Your task to perform on an android device: toggle wifi Image 0: 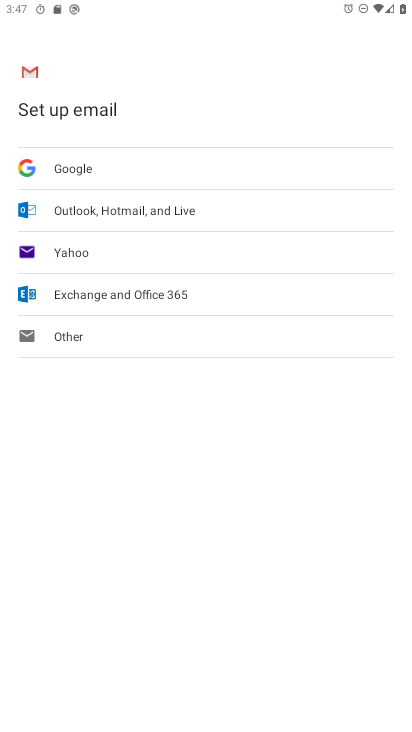
Step 0: press home button
Your task to perform on an android device: toggle wifi Image 1: 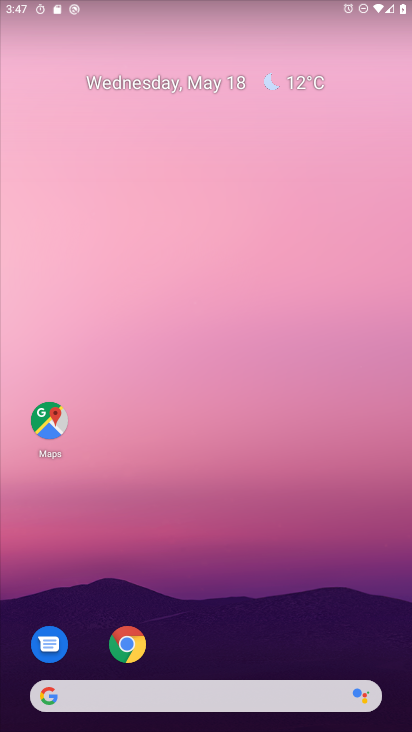
Step 1: drag from (386, 695) to (373, 90)
Your task to perform on an android device: toggle wifi Image 2: 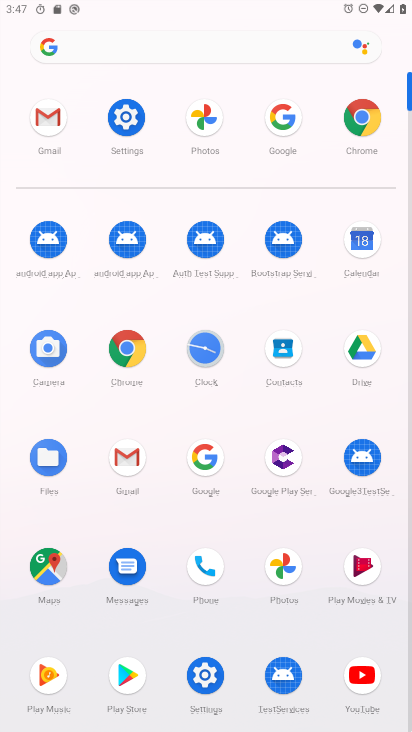
Step 2: click (138, 123)
Your task to perform on an android device: toggle wifi Image 3: 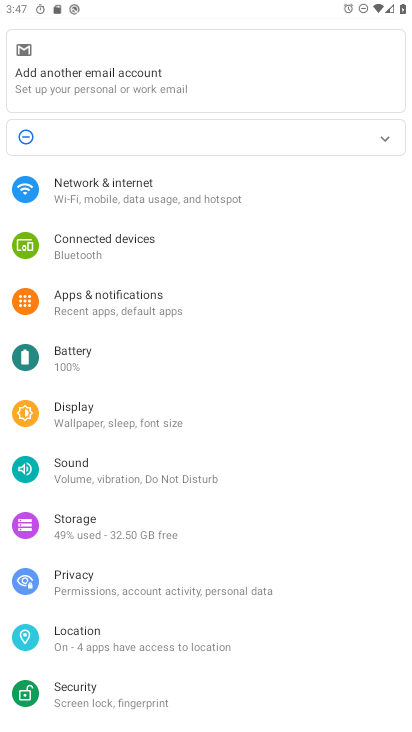
Step 3: click (91, 189)
Your task to perform on an android device: toggle wifi Image 4: 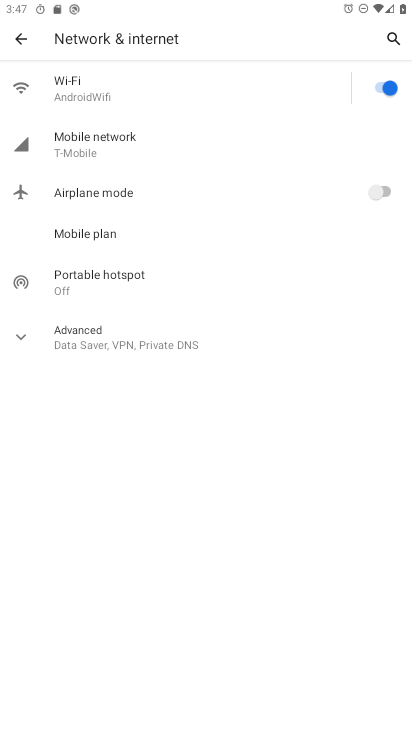
Step 4: click (381, 86)
Your task to perform on an android device: toggle wifi Image 5: 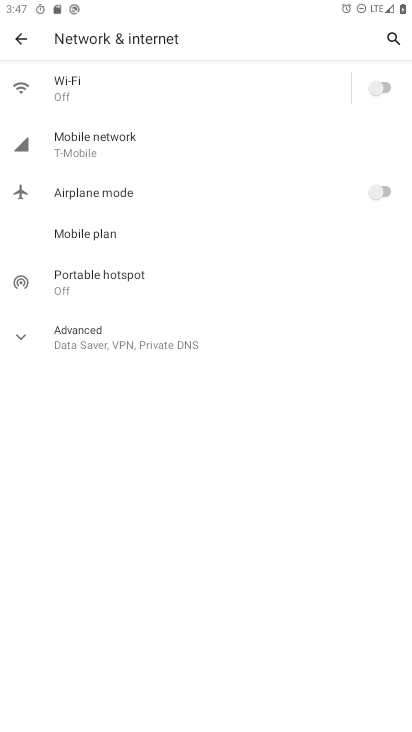
Step 5: task complete